Your task to perform on an android device: What's the weather? Image 0: 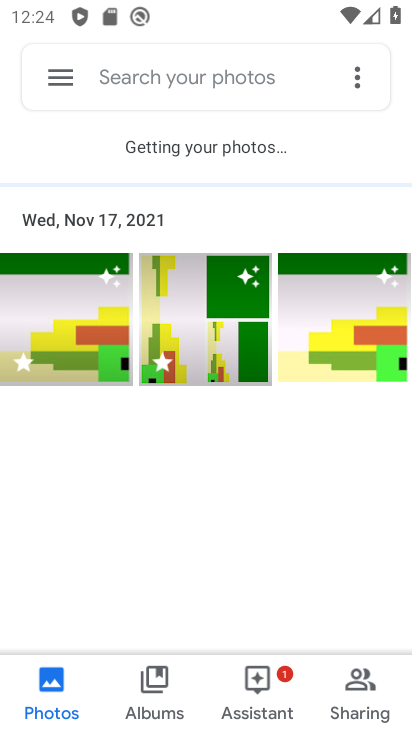
Step 0: press home button
Your task to perform on an android device: What's the weather? Image 1: 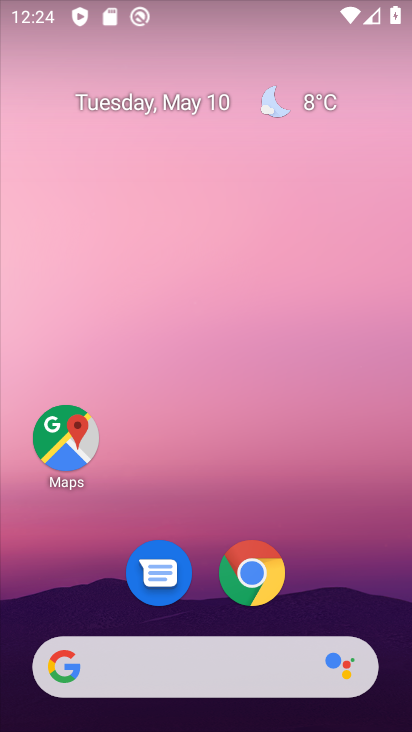
Step 1: click (298, 101)
Your task to perform on an android device: What's the weather? Image 2: 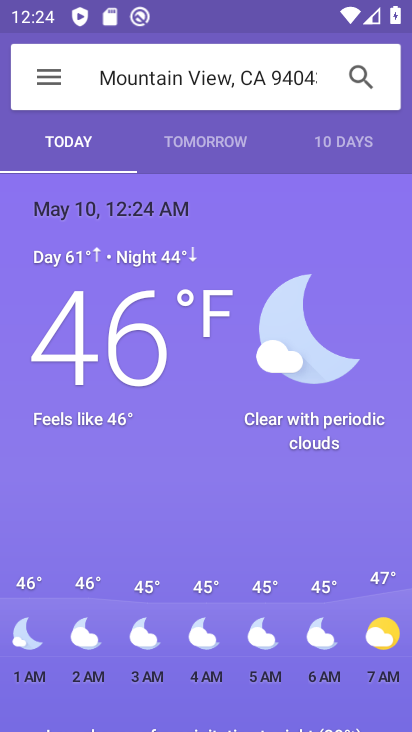
Step 2: task complete